Your task to perform on an android device: change notification settings in the gmail app Image 0: 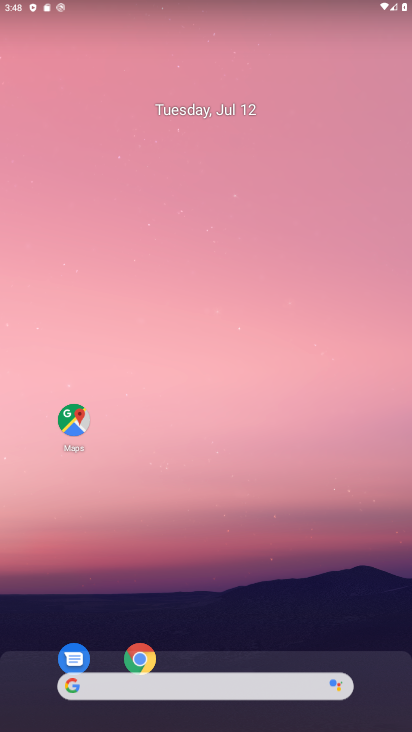
Step 0: drag from (310, 567) to (268, 30)
Your task to perform on an android device: change notification settings in the gmail app Image 1: 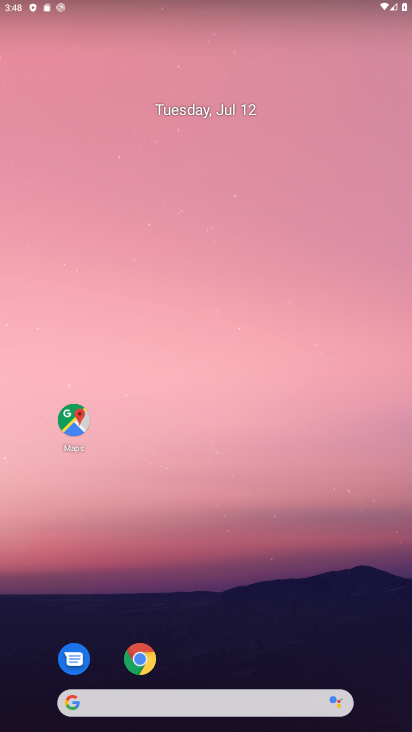
Step 1: drag from (215, 384) to (166, 21)
Your task to perform on an android device: change notification settings in the gmail app Image 2: 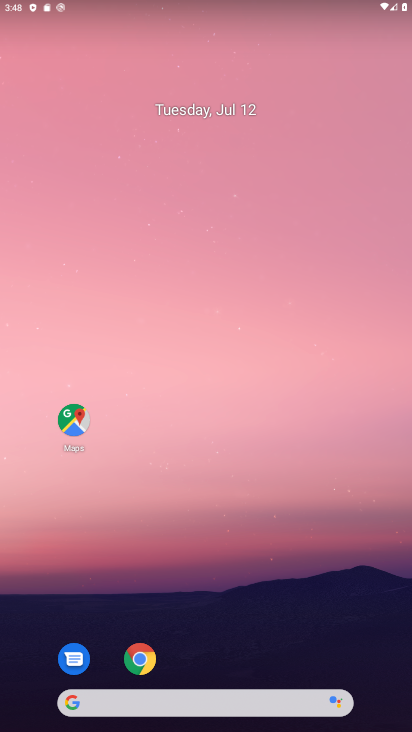
Step 2: click (260, 33)
Your task to perform on an android device: change notification settings in the gmail app Image 3: 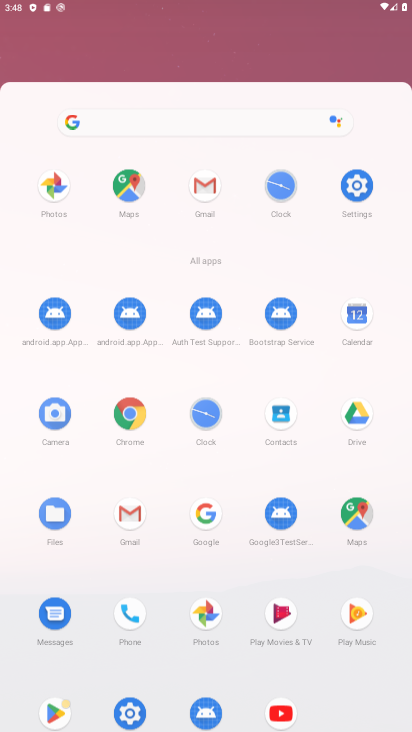
Step 3: drag from (281, 565) to (311, 231)
Your task to perform on an android device: change notification settings in the gmail app Image 4: 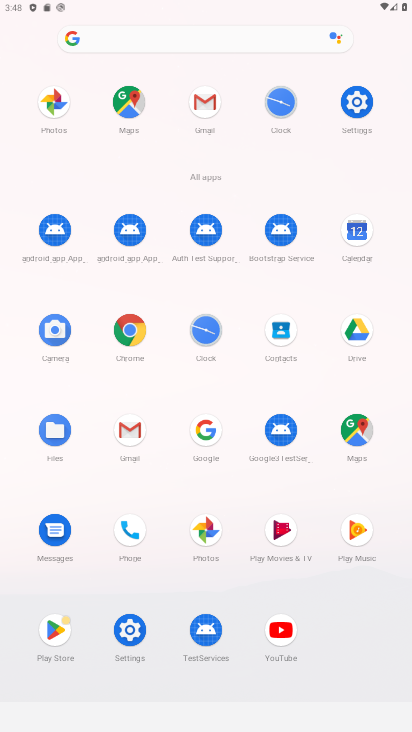
Step 4: click (137, 425)
Your task to perform on an android device: change notification settings in the gmail app Image 5: 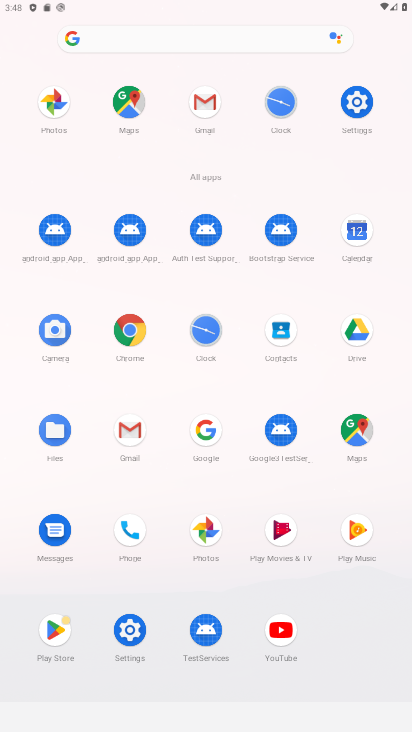
Step 5: click (137, 425)
Your task to perform on an android device: change notification settings in the gmail app Image 6: 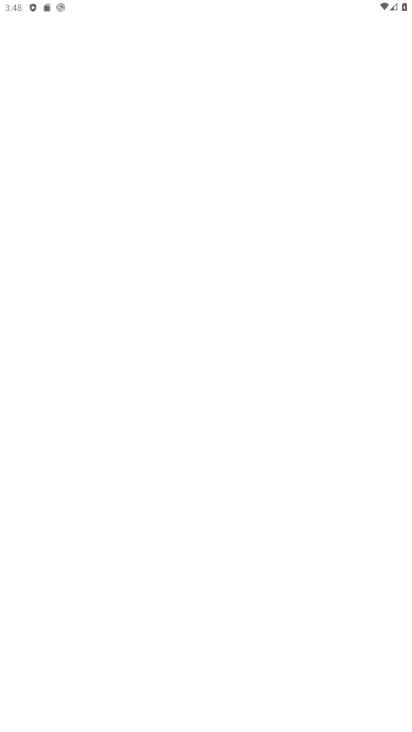
Step 6: click (133, 429)
Your task to perform on an android device: change notification settings in the gmail app Image 7: 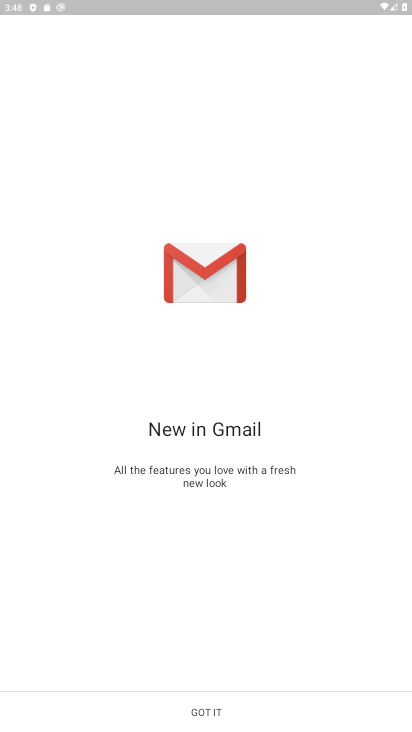
Step 7: click (220, 715)
Your task to perform on an android device: change notification settings in the gmail app Image 8: 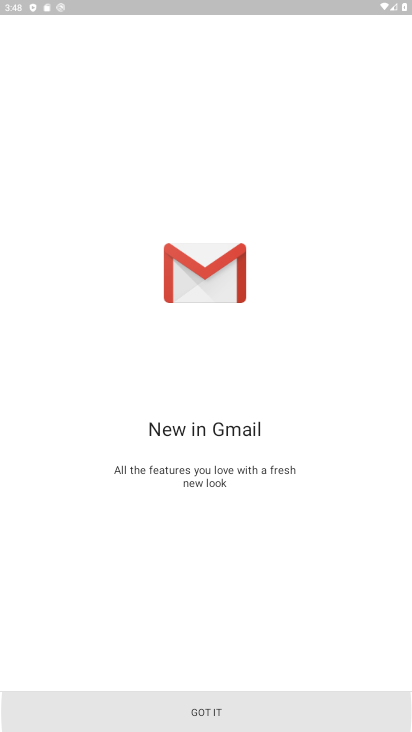
Step 8: click (223, 715)
Your task to perform on an android device: change notification settings in the gmail app Image 9: 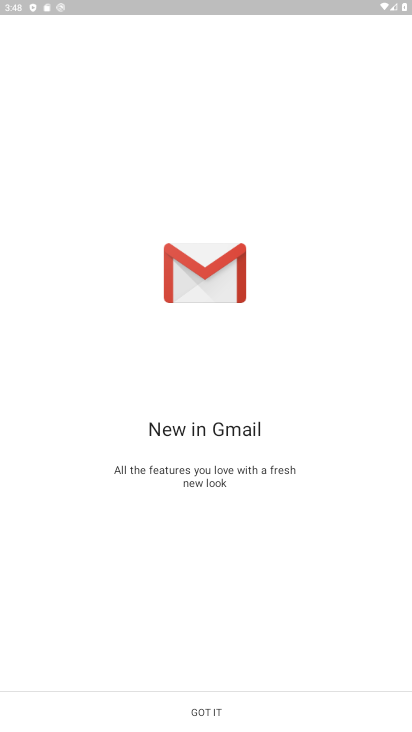
Step 9: click (223, 715)
Your task to perform on an android device: change notification settings in the gmail app Image 10: 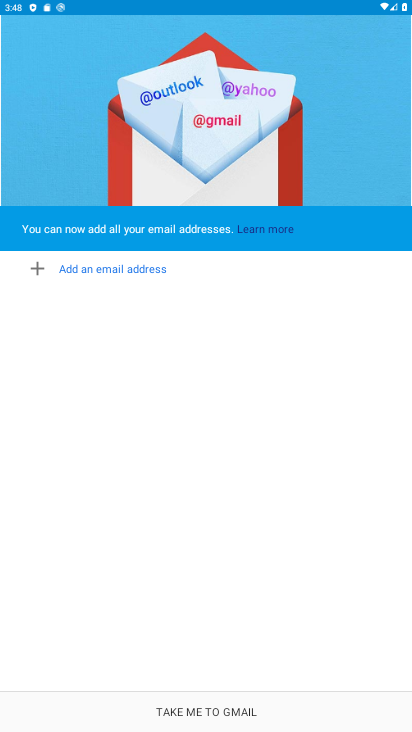
Step 10: click (208, 706)
Your task to perform on an android device: change notification settings in the gmail app Image 11: 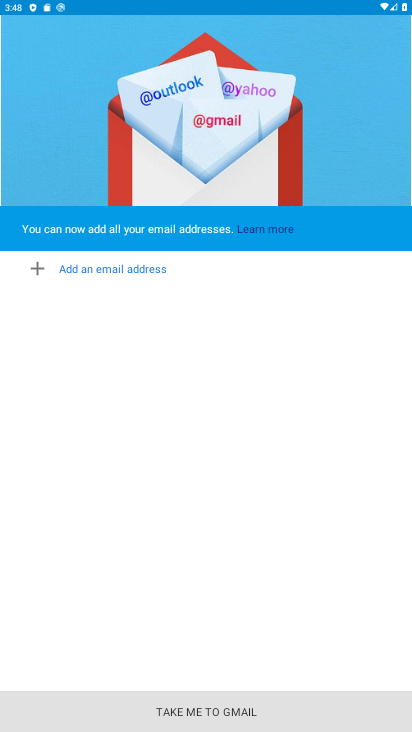
Step 11: click (209, 705)
Your task to perform on an android device: change notification settings in the gmail app Image 12: 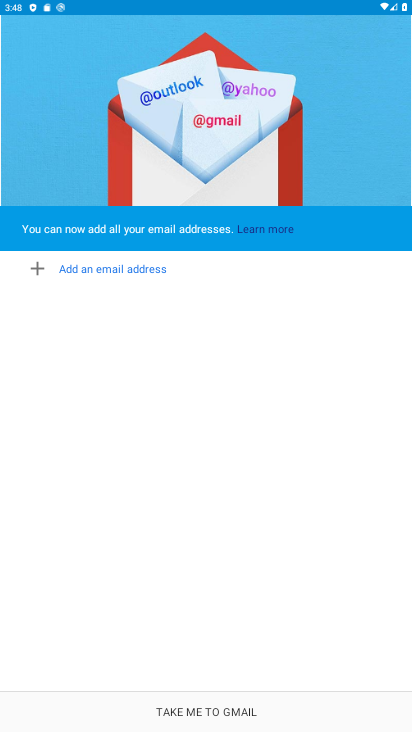
Step 12: click (209, 705)
Your task to perform on an android device: change notification settings in the gmail app Image 13: 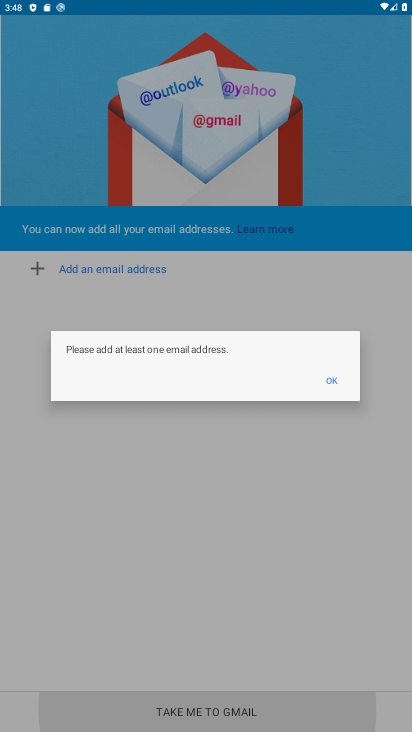
Step 13: click (214, 701)
Your task to perform on an android device: change notification settings in the gmail app Image 14: 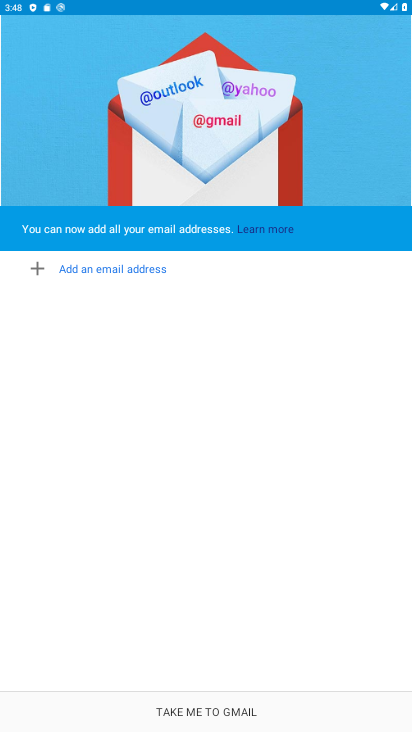
Step 14: click (234, 717)
Your task to perform on an android device: change notification settings in the gmail app Image 15: 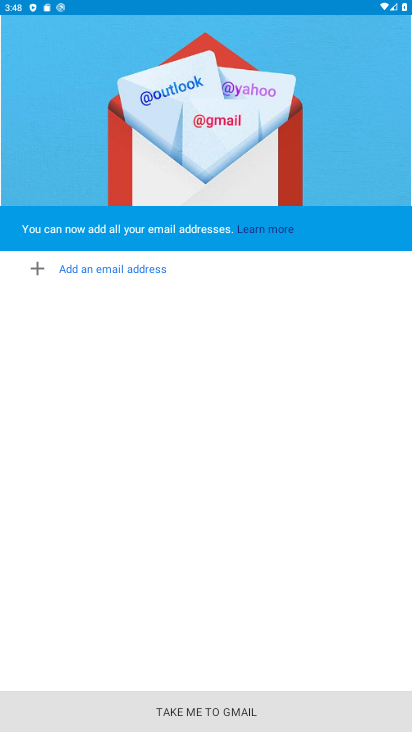
Step 15: click (235, 716)
Your task to perform on an android device: change notification settings in the gmail app Image 16: 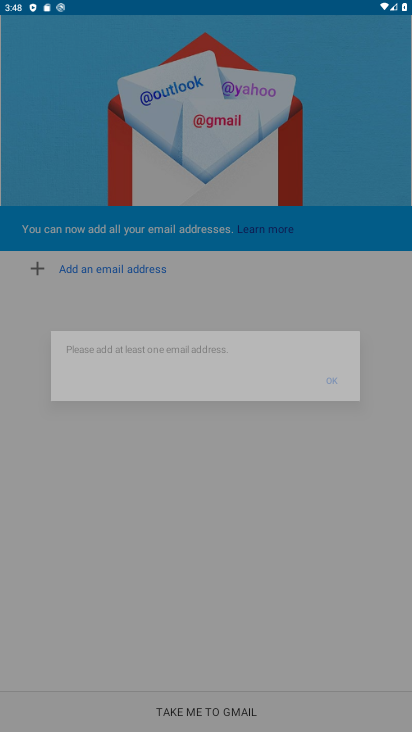
Step 16: click (342, 717)
Your task to perform on an android device: change notification settings in the gmail app Image 17: 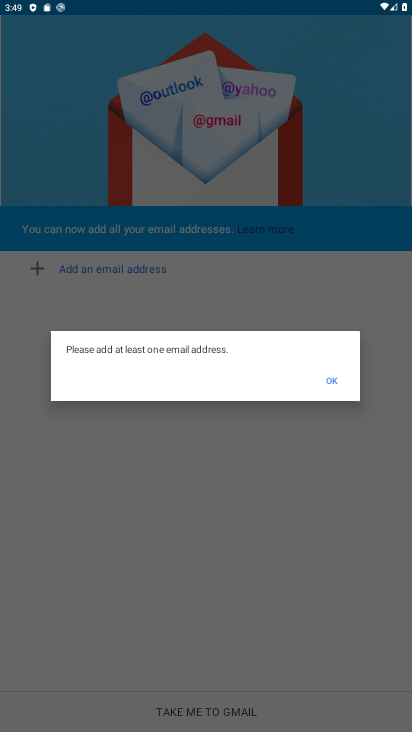
Step 17: click (330, 375)
Your task to perform on an android device: change notification settings in the gmail app Image 18: 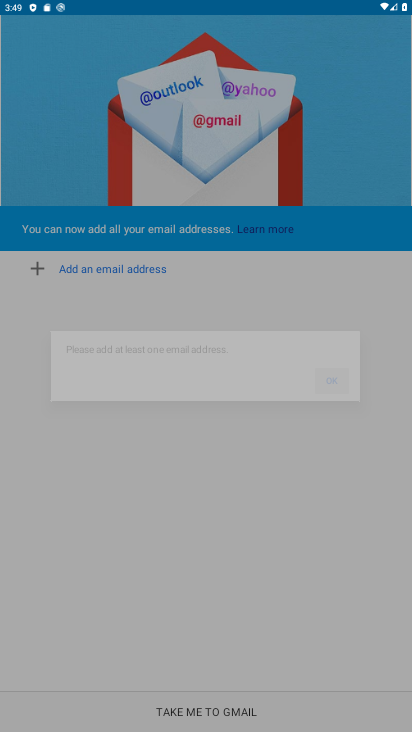
Step 18: click (334, 373)
Your task to perform on an android device: change notification settings in the gmail app Image 19: 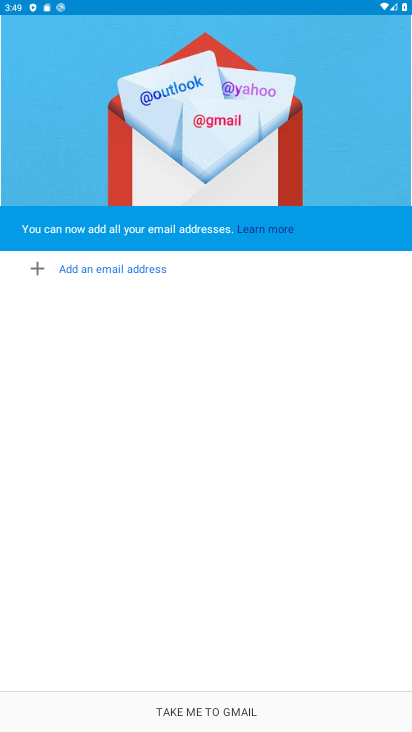
Step 19: click (204, 709)
Your task to perform on an android device: change notification settings in the gmail app Image 20: 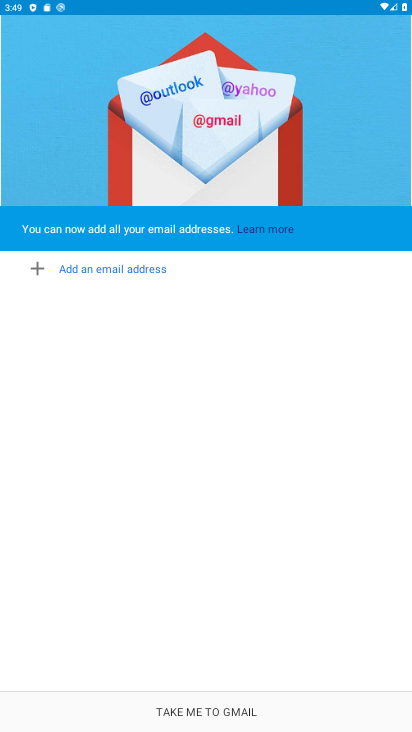
Step 20: click (204, 703)
Your task to perform on an android device: change notification settings in the gmail app Image 21: 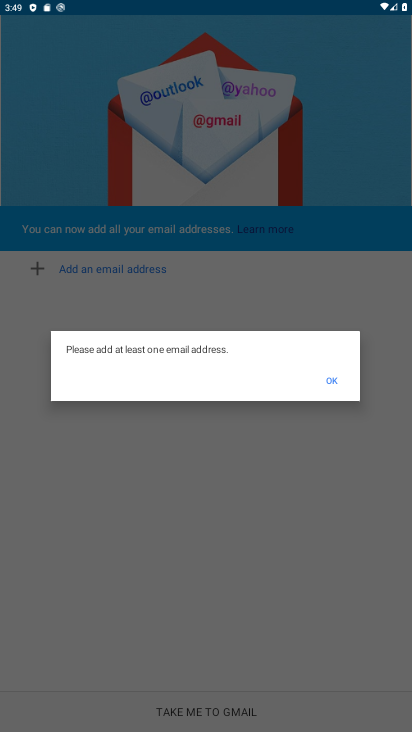
Step 21: click (205, 702)
Your task to perform on an android device: change notification settings in the gmail app Image 22: 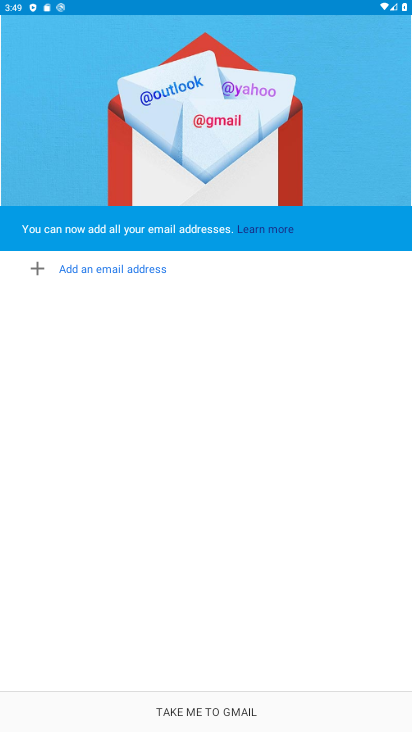
Step 22: task complete